Your task to perform on an android device: Go to wifi settings Image 0: 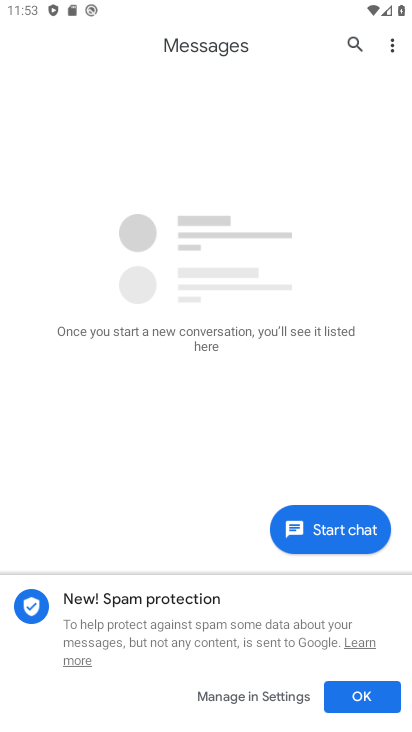
Step 0: press home button
Your task to perform on an android device: Go to wifi settings Image 1: 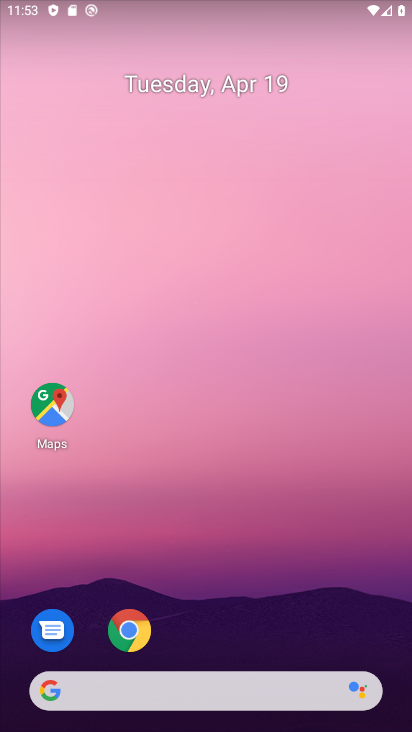
Step 1: drag from (164, 693) to (345, 59)
Your task to perform on an android device: Go to wifi settings Image 2: 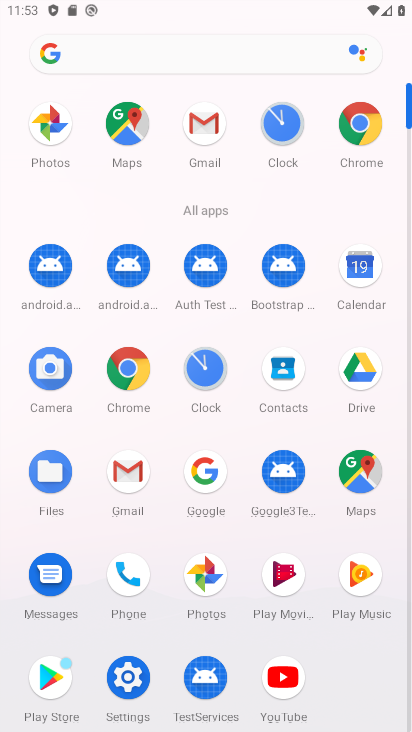
Step 2: click (128, 677)
Your task to perform on an android device: Go to wifi settings Image 3: 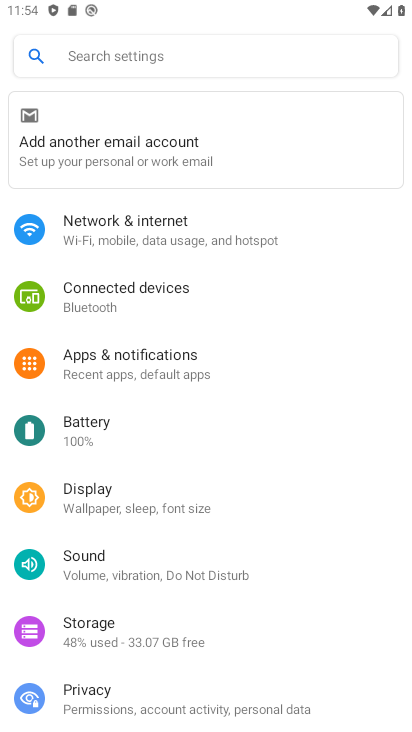
Step 3: click (164, 226)
Your task to perform on an android device: Go to wifi settings Image 4: 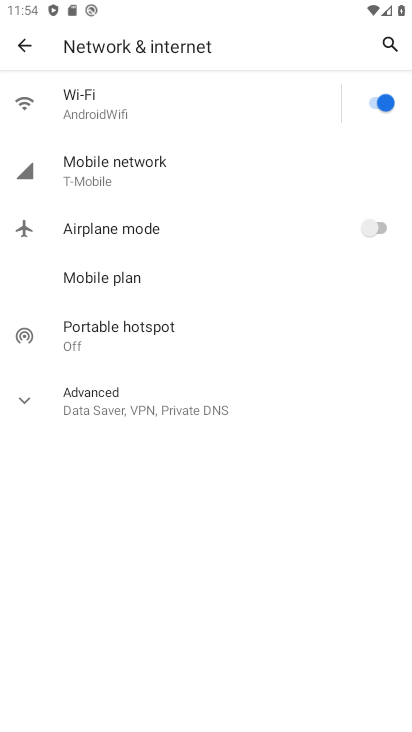
Step 4: click (171, 99)
Your task to perform on an android device: Go to wifi settings Image 5: 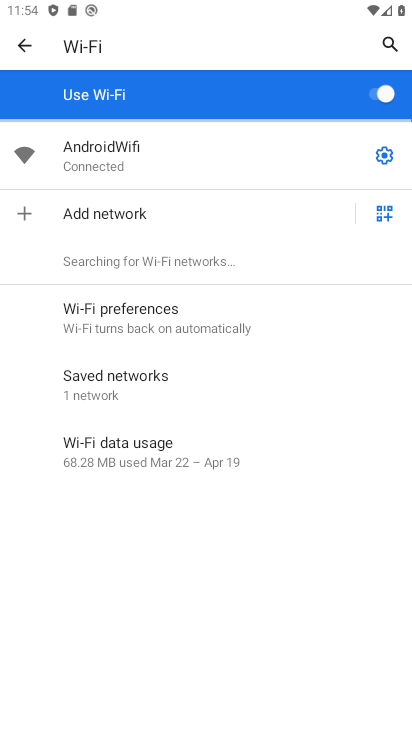
Step 5: task complete